Your task to perform on an android device: clear history in the chrome app Image 0: 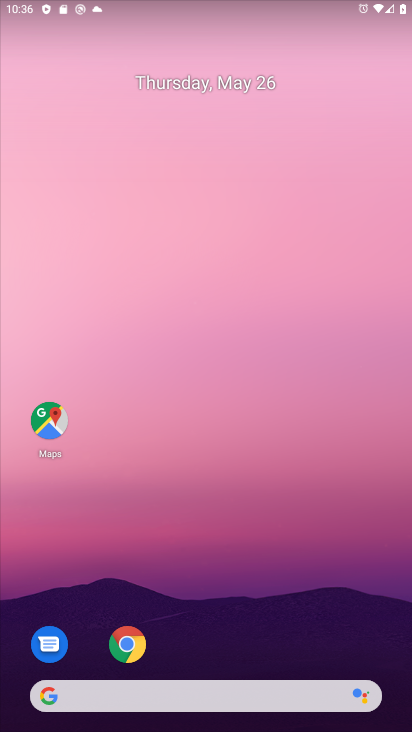
Step 0: click (138, 645)
Your task to perform on an android device: clear history in the chrome app Image 1: 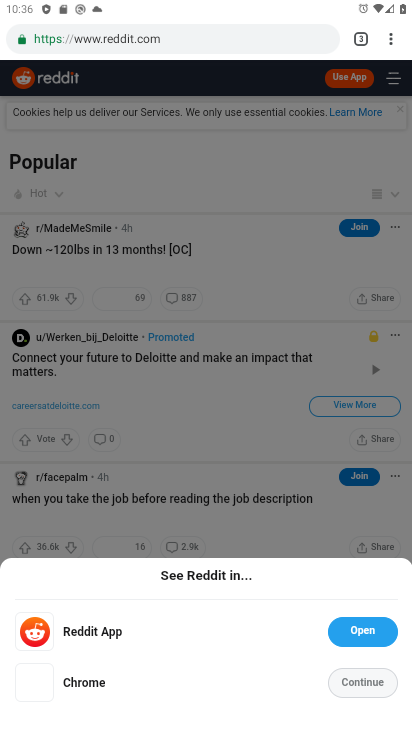
Step 1: drag from (389, 34) to (263, 213)
Your task to perform on an android device: clear history in the chrome app Image 2: 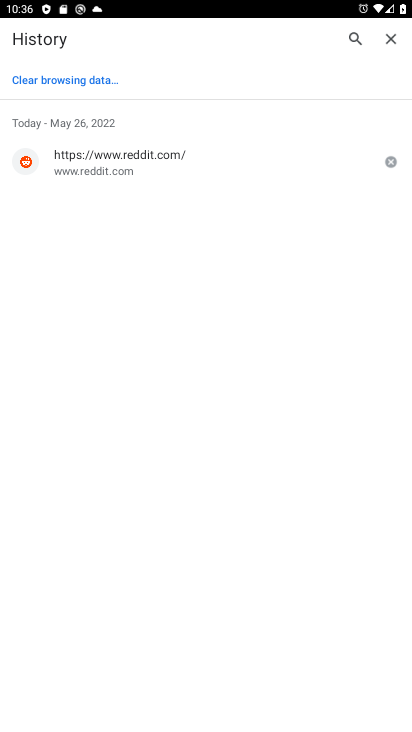
Step 2: click (77, 84)
Your task to perform on an android device: clear history in the chrome app Image 3: 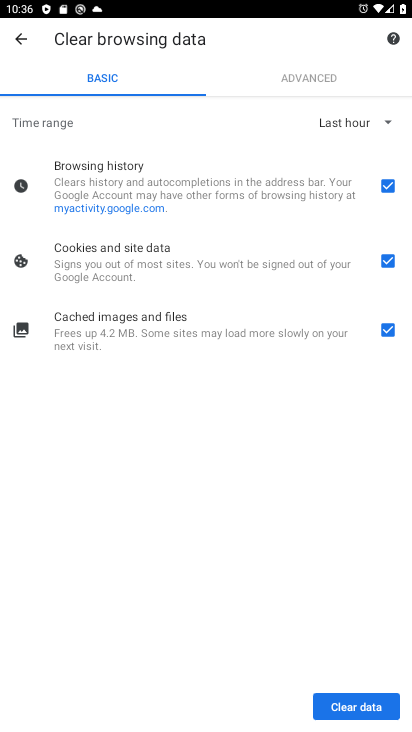
Step 3: click (341, 697)
Your task to perform on an android device: clear history in the chrome app Image 4: 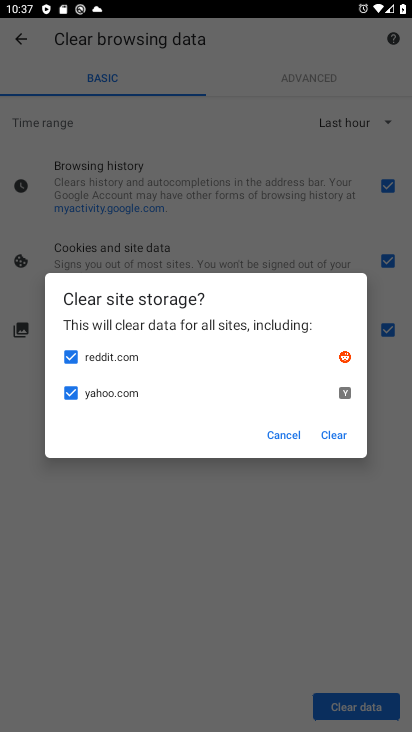
Step 4: click (320, 423)
Your task to perform on an android device: clear history in the chrome app Image 5: 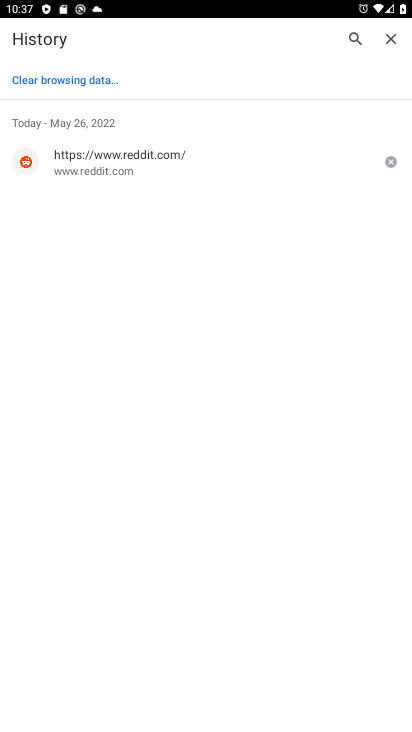
Step 5: task complete